Your task to perform on an android device: remove spam from my inbox in the gmail app Image 0: 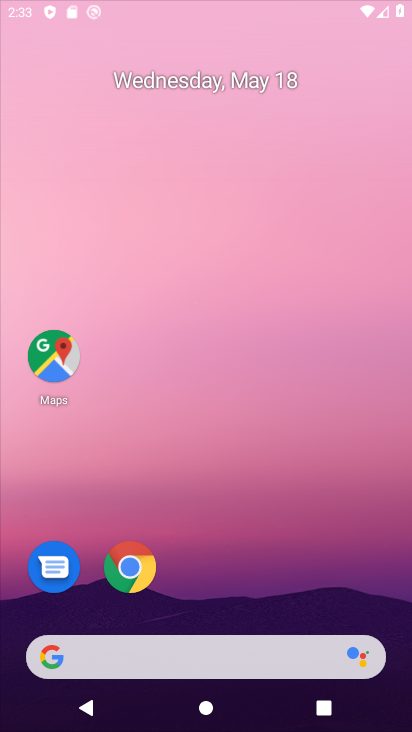
Step 0: click (224, 88)
Your task to perform on an android device: remove spam from my inbox in the gmail app Image 1: 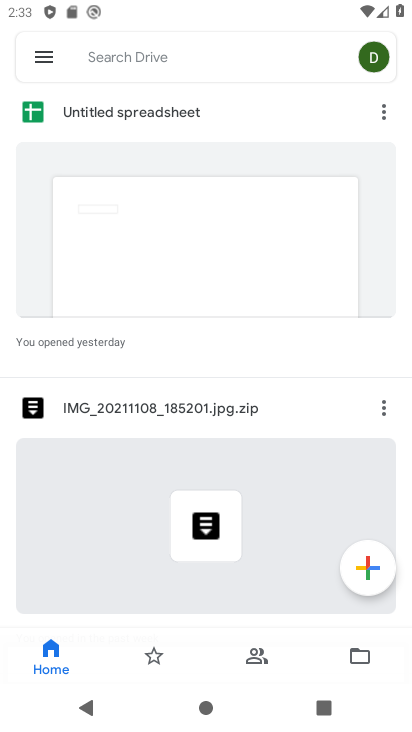
Step 1: press back button
Your task to perform on an android device: remove spam from my inbox in the gmail app Image 2: 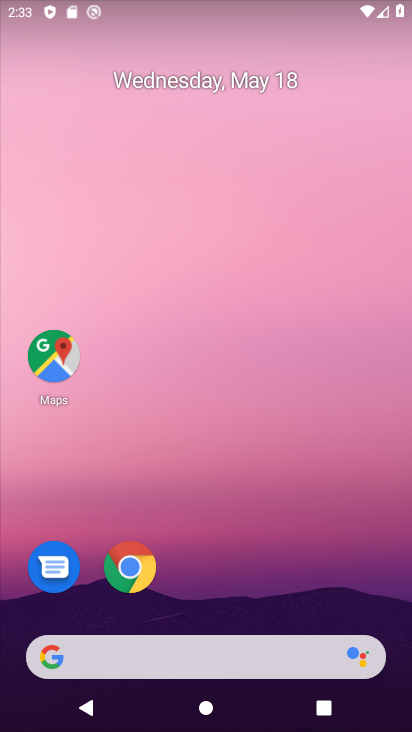
Step 2: drag from (113, 167) to (112, 72)
Your task to perform on an android device: remove spam from my inbox in the gmail app Image 3: 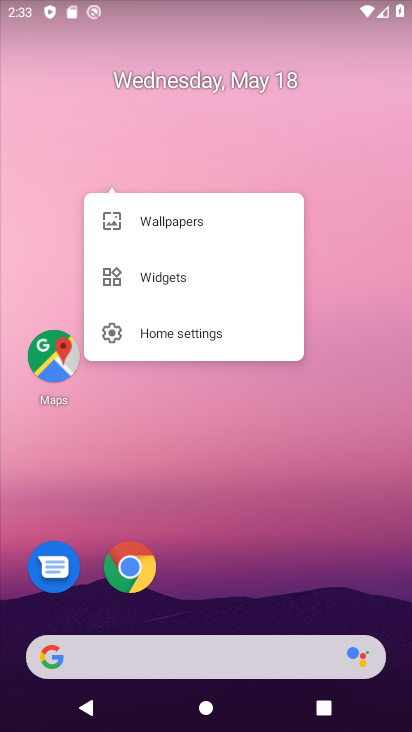
Step 3: drag from (220, 249) to (208, 68)
Your task to perform on an android device: remove spam from my inbox in the gmail app Image 4: 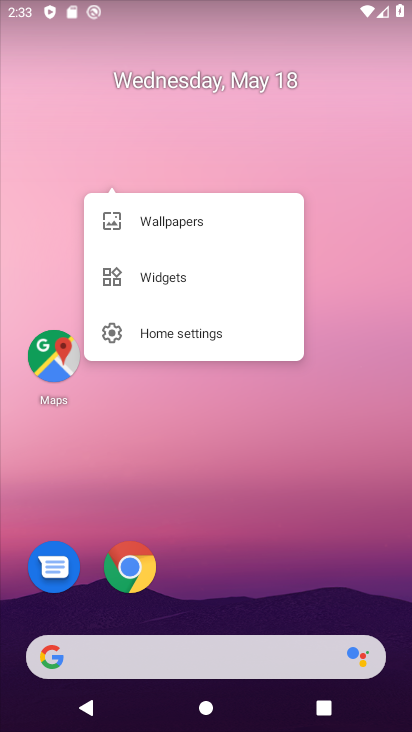
Step 4: click (265, 569)
Your task to perform on an android device: remove spam from my inbox in the gmail app Image 5: 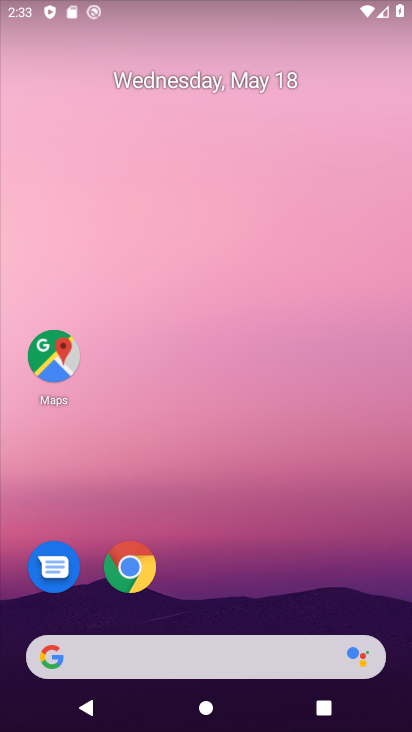
Step 5: drag from (260, 574) to (196, 44)
Your task to perform on an android device: remove spam from my inbox in the gmail app Image 6: 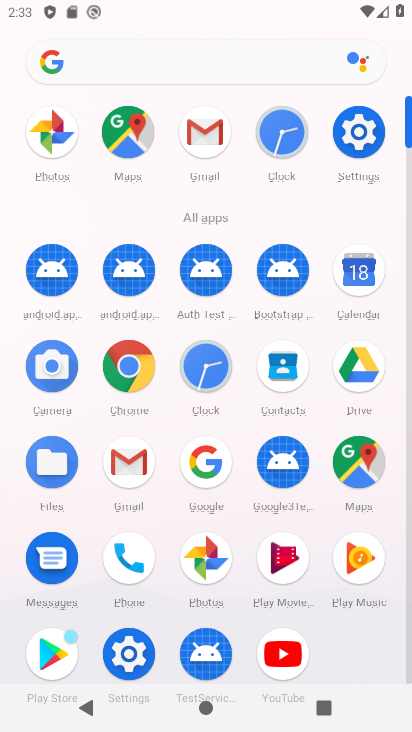
Step 6: click (204, 142)
Your task to perform on an android device: remove spam from my inbox in the gmail app Image 7: 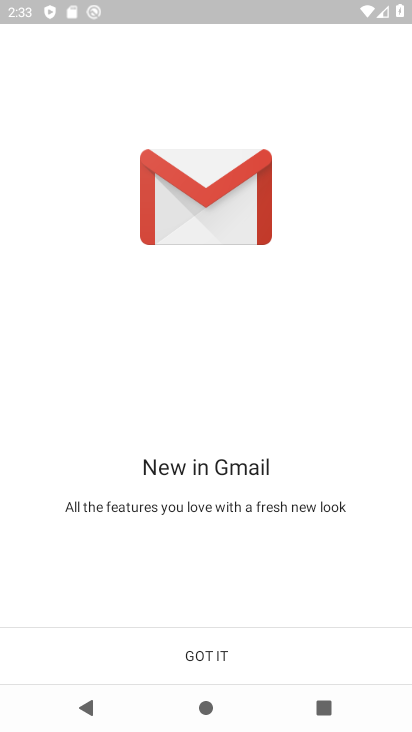
Step 7: click (196, 658)
Your task to perform on an android device: remove spam from my inbox in the gmail app Image 8: 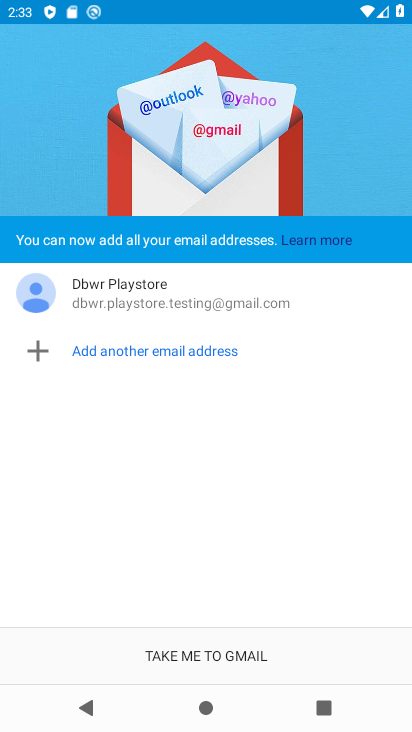
Step 8: click (210, 657)
Your task to perform on an android device: remove spam from my inbox in the gmail app Image 9: 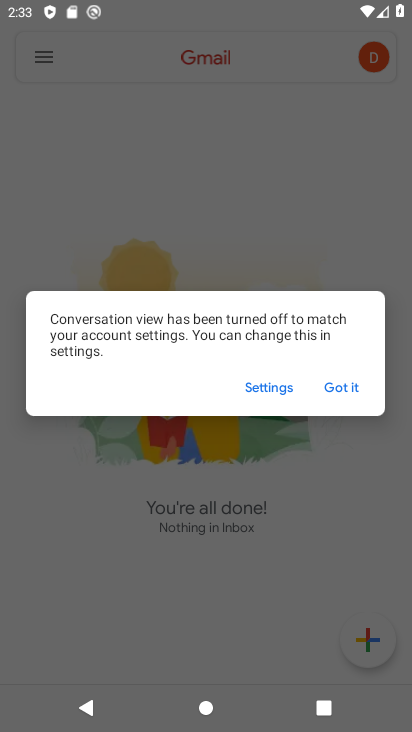
Step 9: click (352, 388)
Your task to perform on an android device: remove spam from my inbox in the gmail app Image 10: 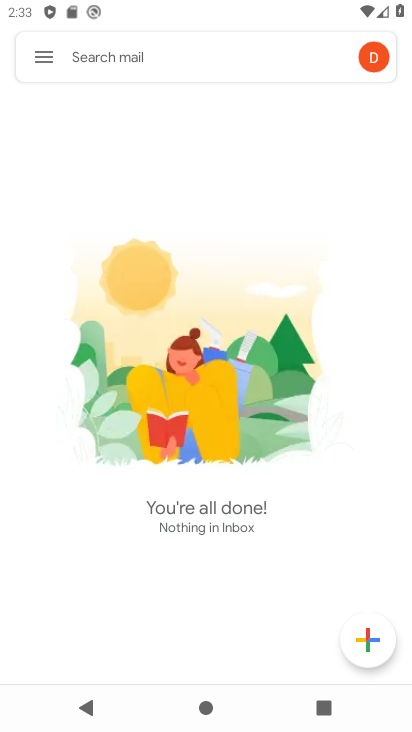
Step 10: click (40, 66)
Your task to perform on an android device: remove spam from my inbox in the gmail app Image 11: 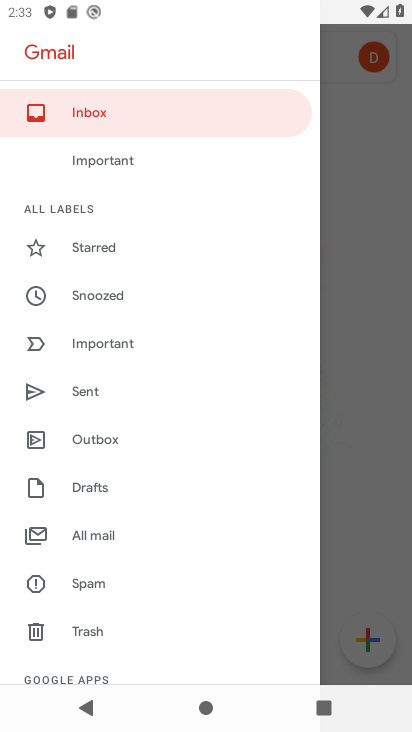
Step 11: click (88, 578)
Your task to perform on an android device: remove spam from my inbox in the gmail app Image 12: 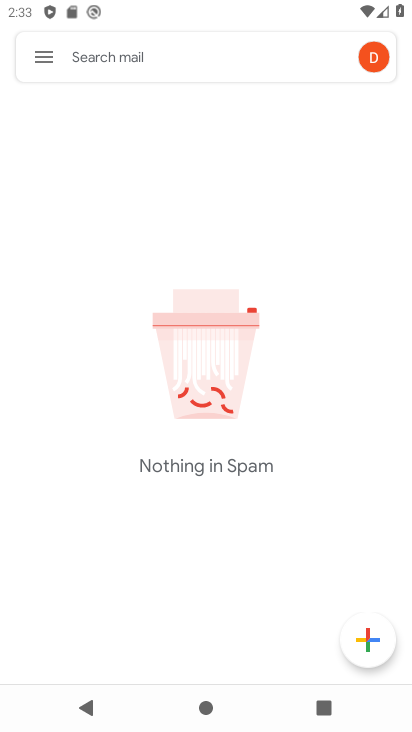
Step 12: task complete